Your task to perform on an android device: Open calendar and show me the first week of next month Image 0: 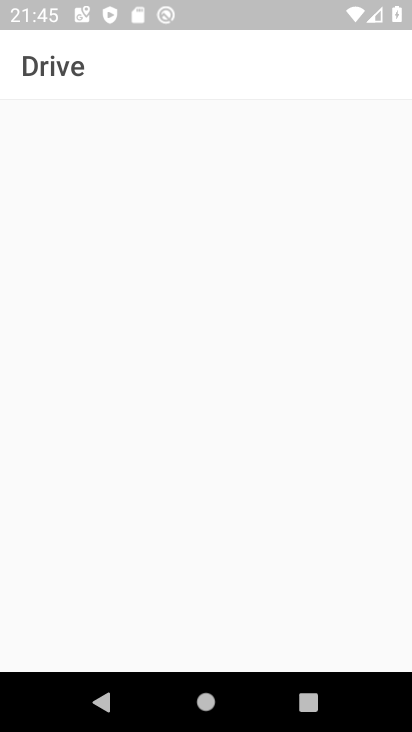
Step 0: click (106, 701)
Your task to perform on an android device: Open calendar and show me the first week of next month Image 1: 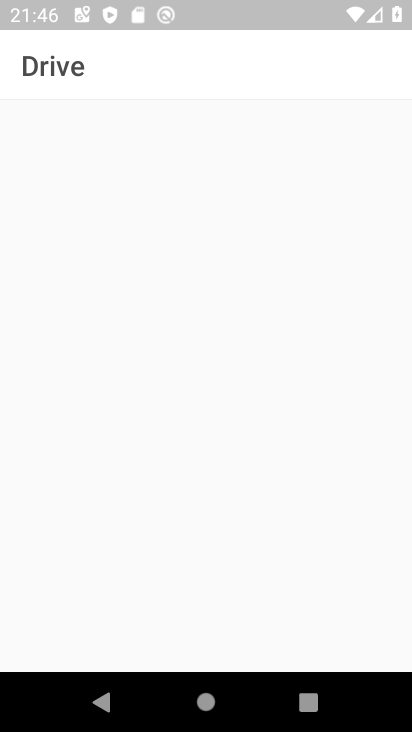
Step 1: press back button
Your task to perform on an android device: Open calendar and show me the first week of next month Image 2: 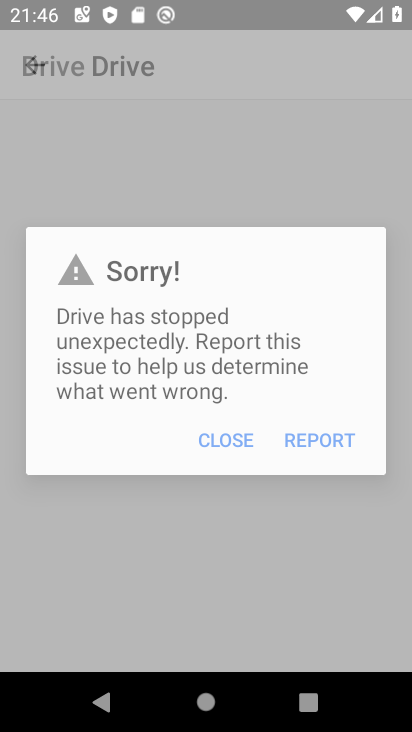
Step 2: press back button
Your task to perform on an android device: Open calendar and show me the first week of next month Image 3: 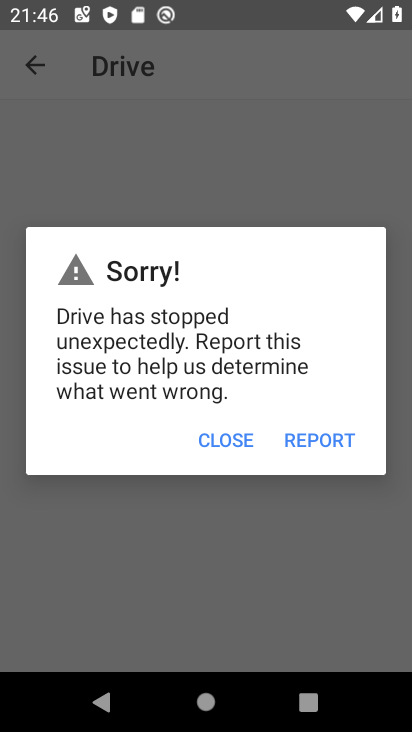
Step 3: press home button
Your task to perform on an android device: Open calendar and show me the first week of next month Image 4: 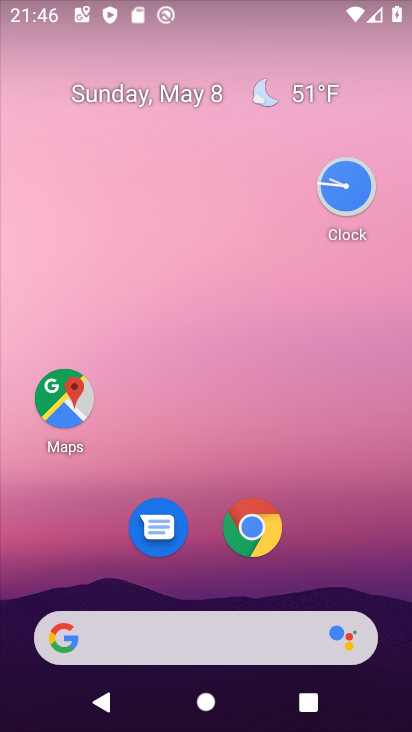
Step 4: drag from (328, 526) to (398, 13)
Your task to perform on an android device: Open calendar and show me the first week of next month Image 5: 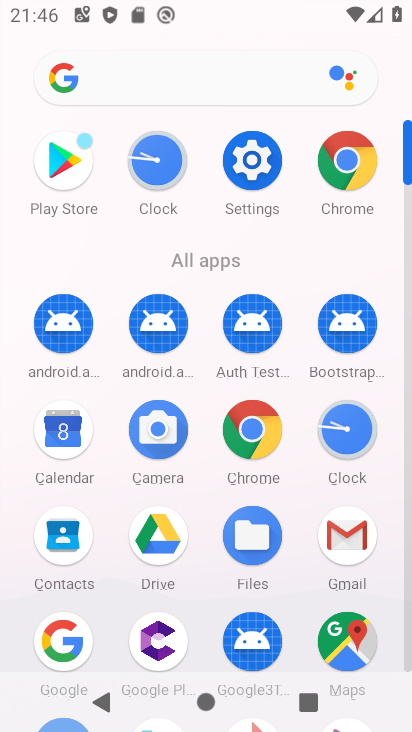
Step 5: click (65, 432)
Your task to perform on an android device: Open calendar and show me the first week of next month Image 6: 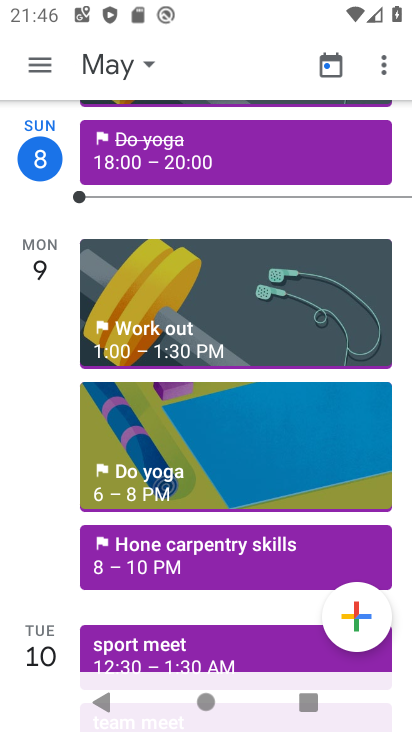
Step 6: click (56, 62)
Your task to perform on an android device: Open calendar and show me the first week of next month Image 7: 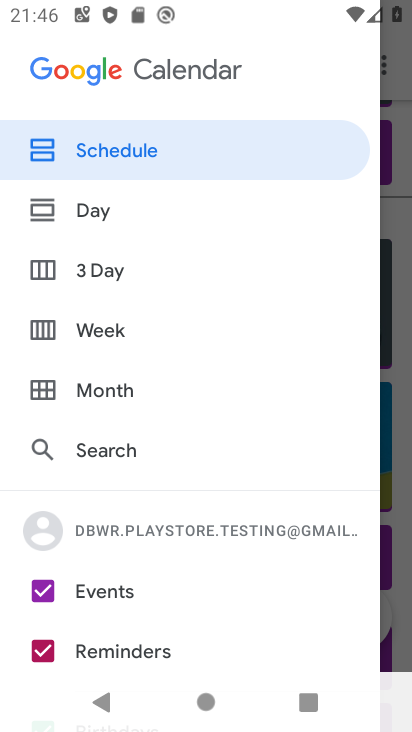
Step 7: click (95, 328)
Your task to perform on an android device: Open calendar and show me the first week of next month Image 8: 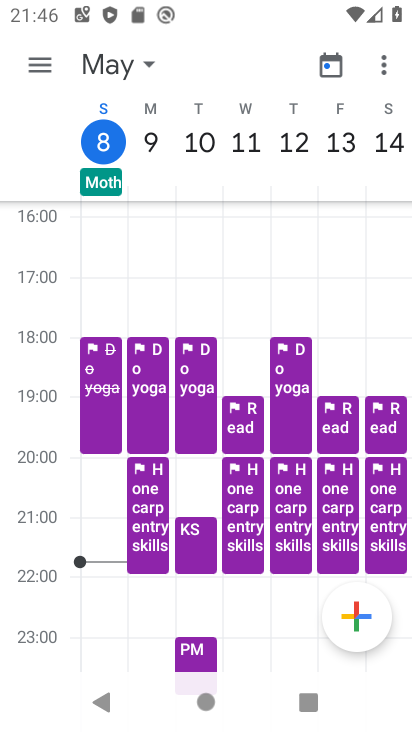
Step 8: click (143, 56)
Your task to perform on an android device: Open calendar and show me the first week of next month Image 9: 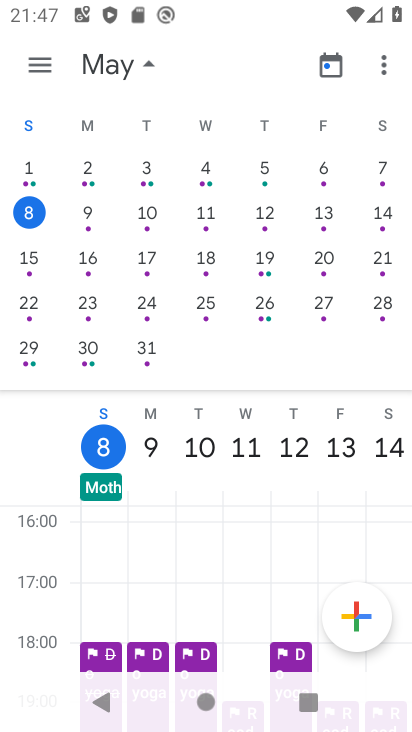
Step 9: task complete